Your task to perform on an android device: manage bookmarks in the chrome app Image 0: 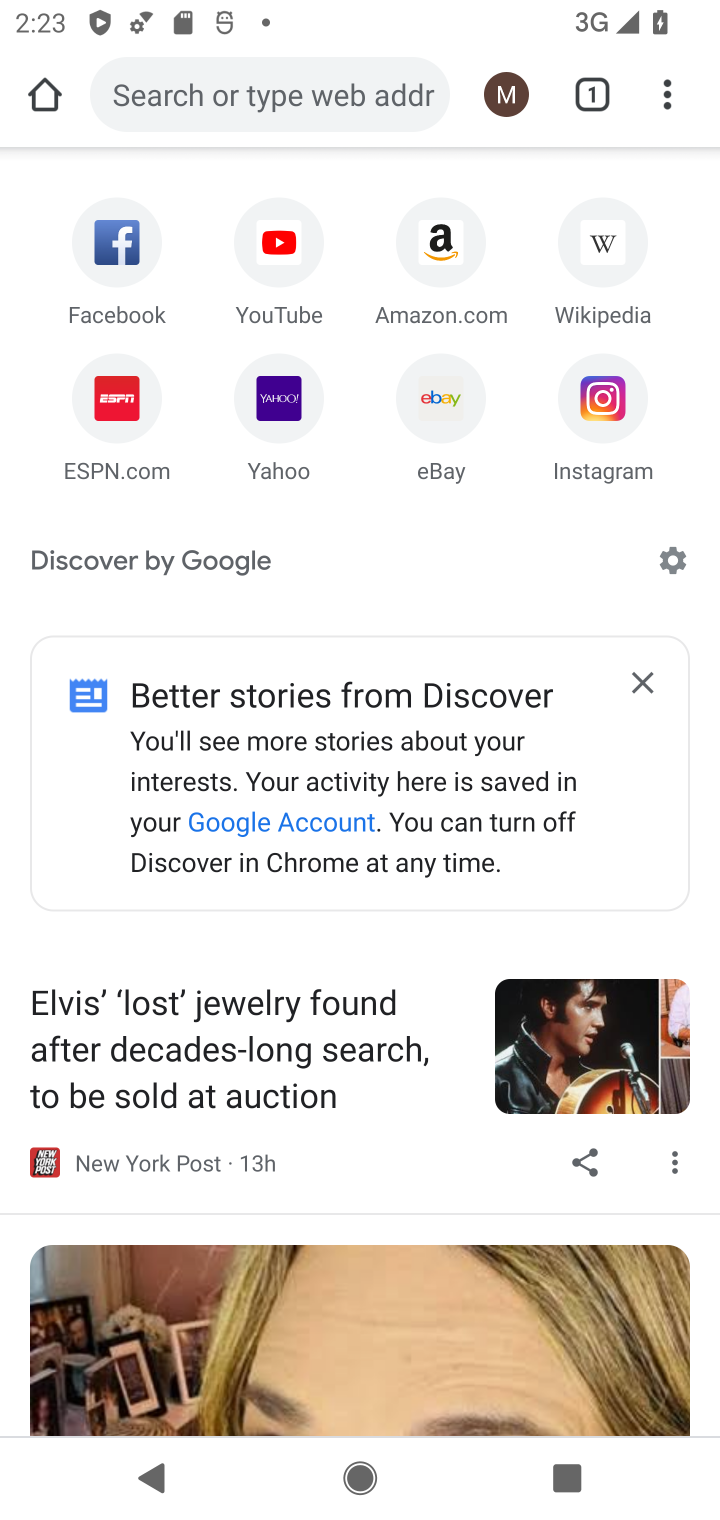
Step 0: press home button
Your task to perform on an android device: manage bookmarks in the chrome app Image 1: 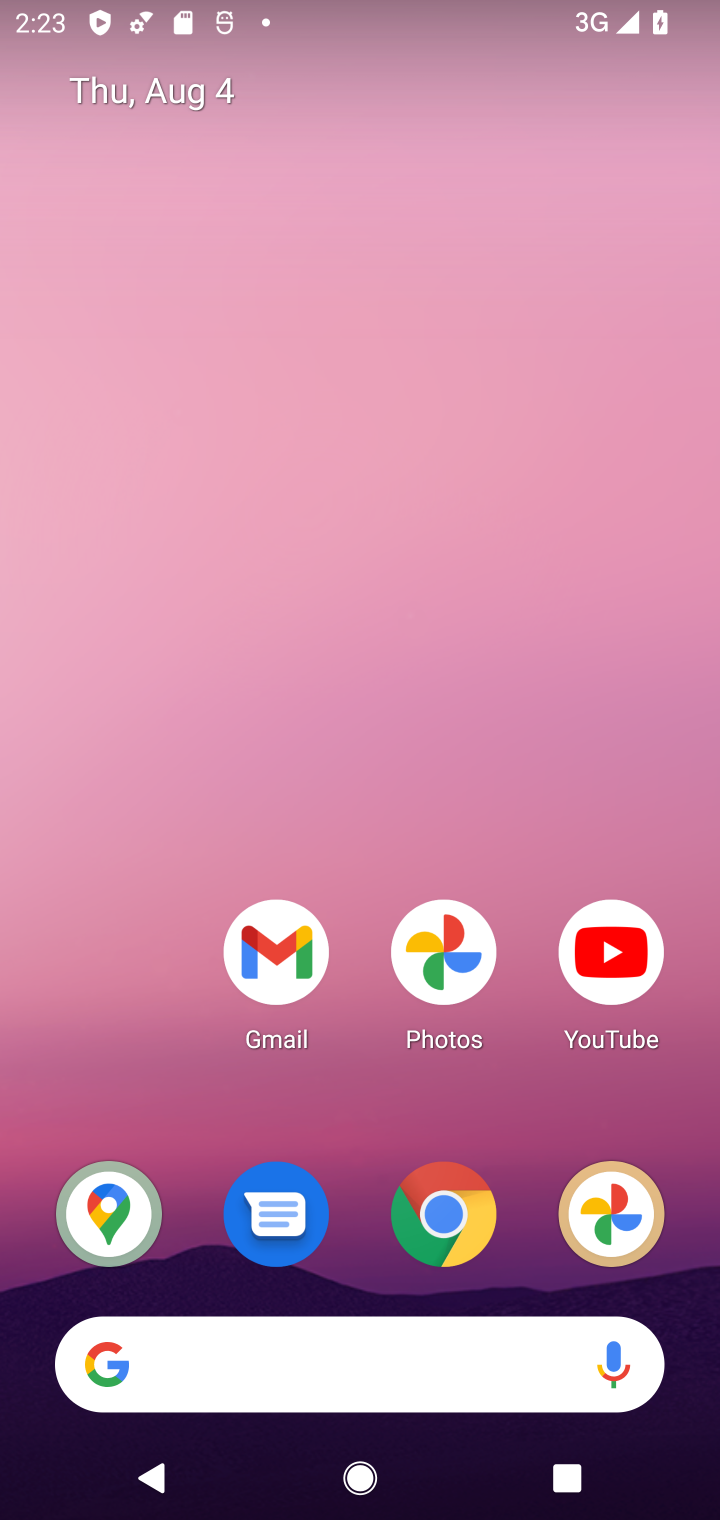
Step 1: drag from (136, 1012) to (249, 27)
Your task to perform on an android device: manage bookmarks in the chrome app Image 2: 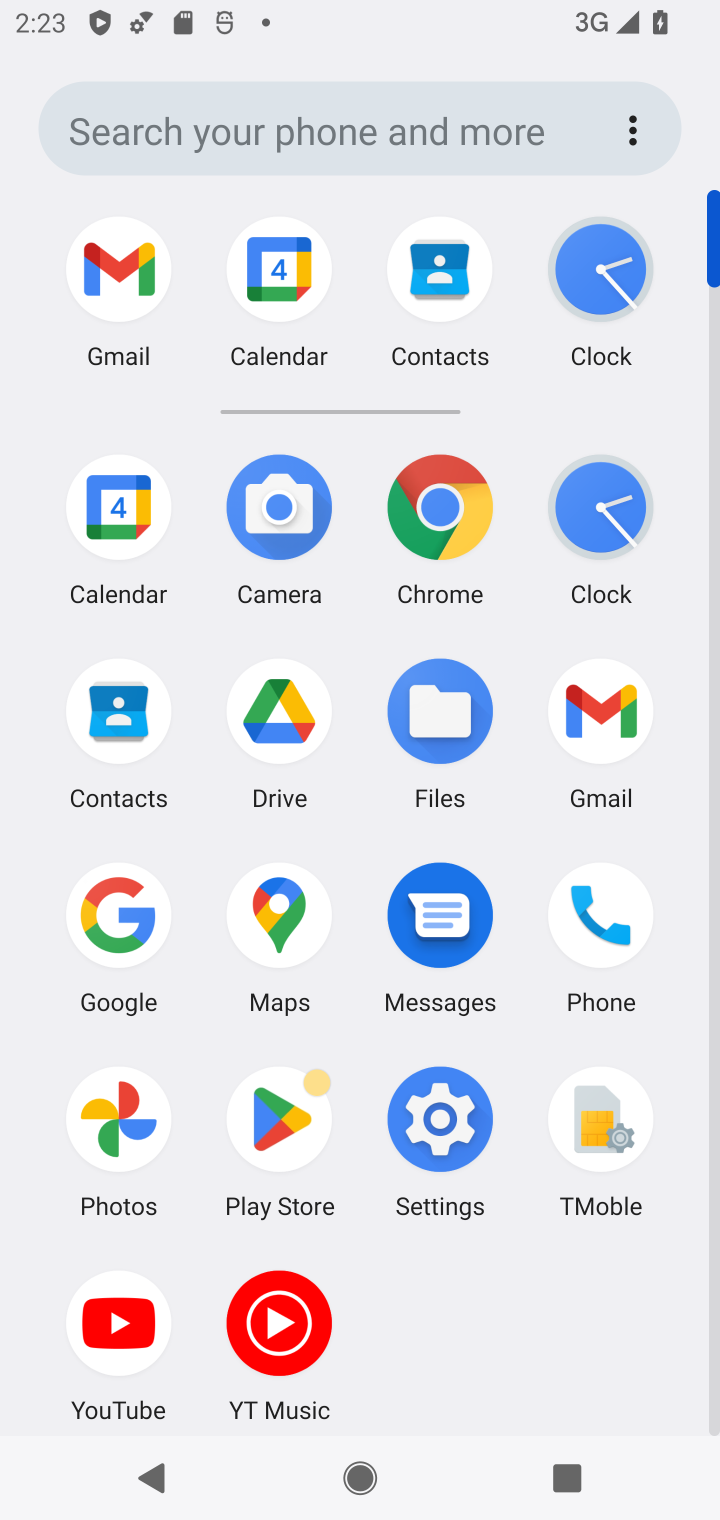
Step 2: click (429, 530)
Your task to perform on an android device: manage bookmarks in the chrome app Image 3: 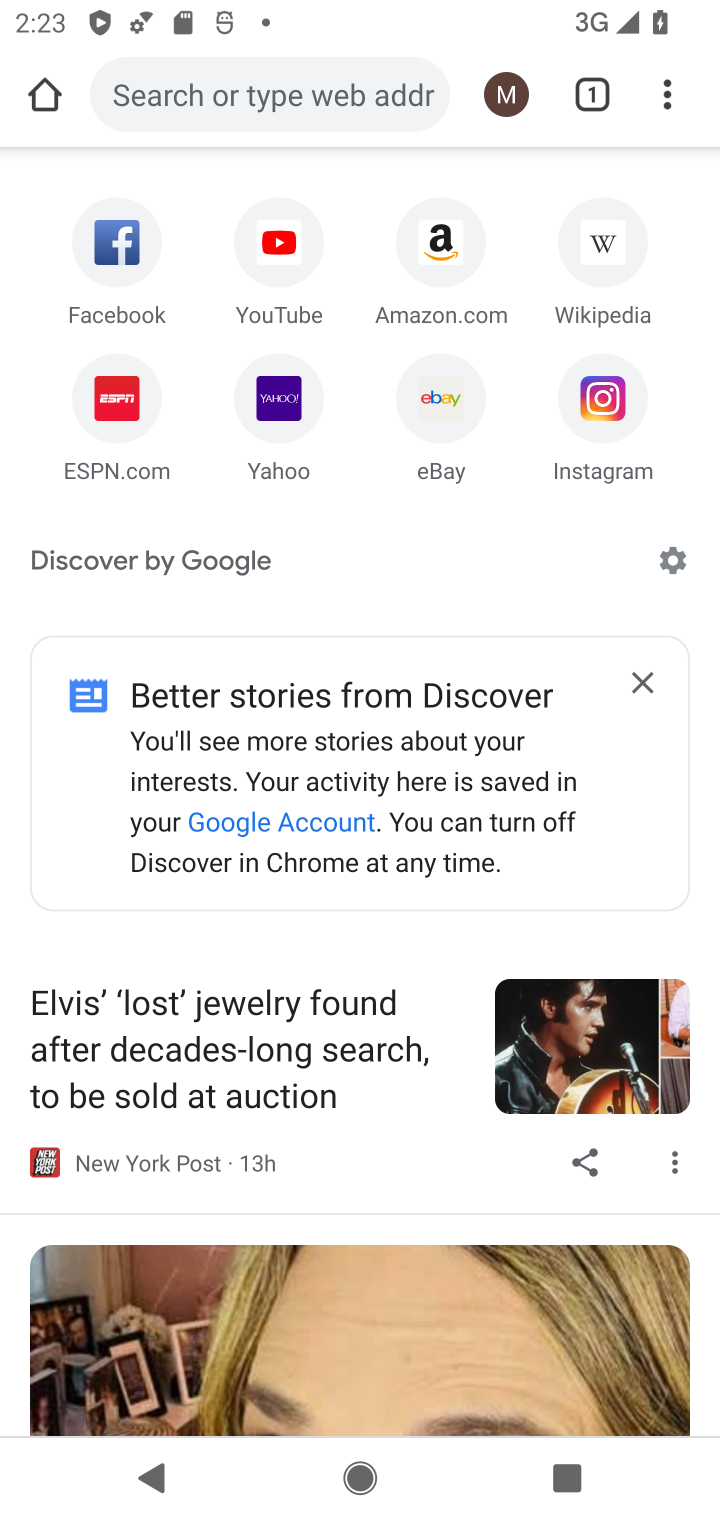
Step 3: task complete